Your task to perform on an android device: turn off sleep mode Image 0: 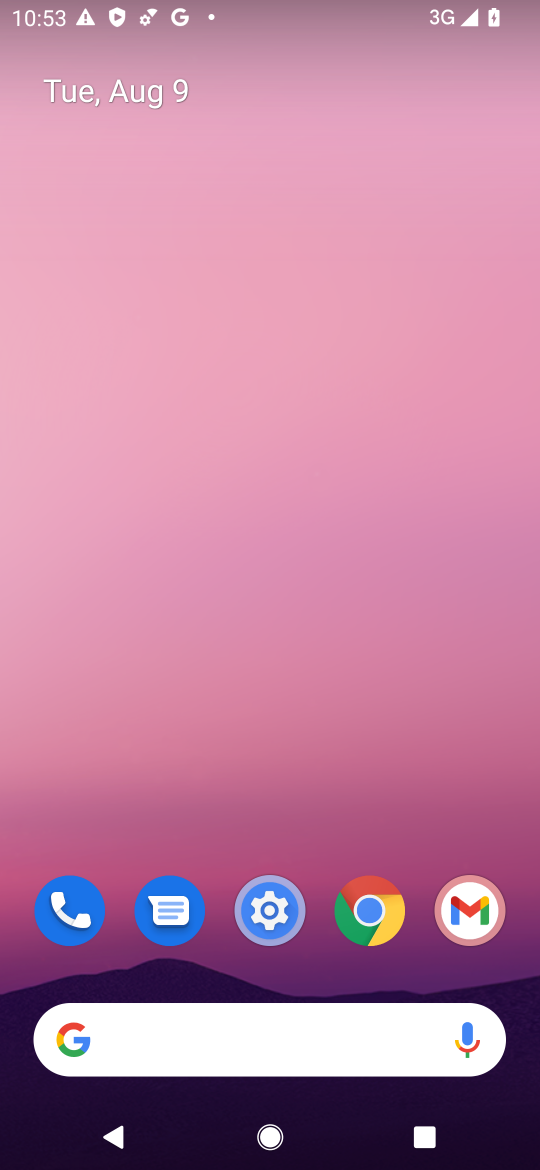
Step 0: drag from (72, 990) to (403, 181)
Your task to perform on an android device: turn off sleep mode Image 1: 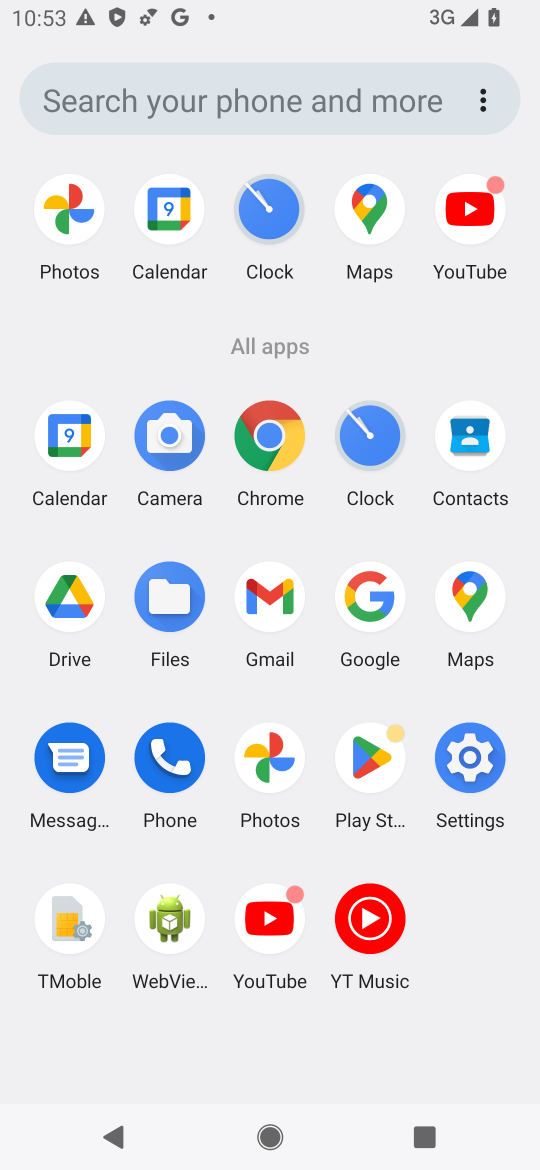
Step 1: click (462, 755)
Your task to perform on an android device: turn off sleep mode Image 2: 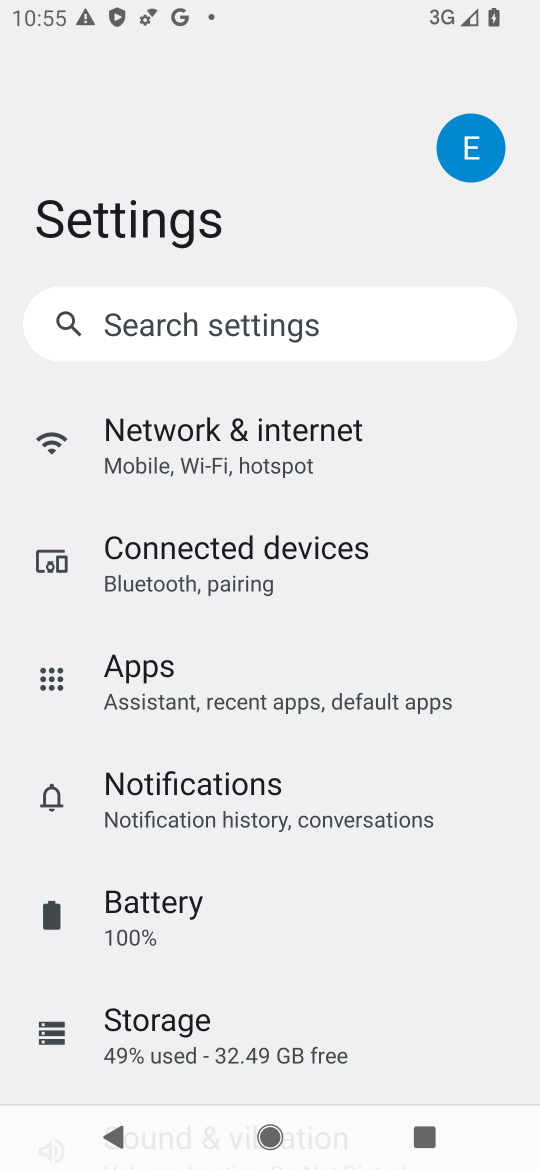
Step 2: task complete